Your task to perform on an android device: Go to Google Image 0: 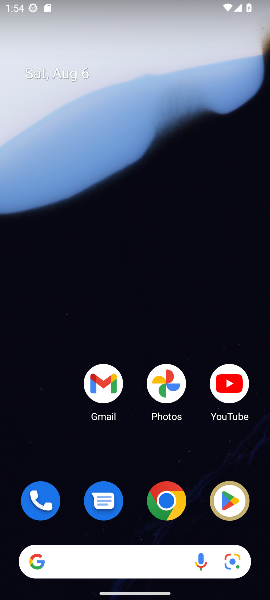
Step 0: press home button
Your task to perform on an android device: Go to Google Image 1: 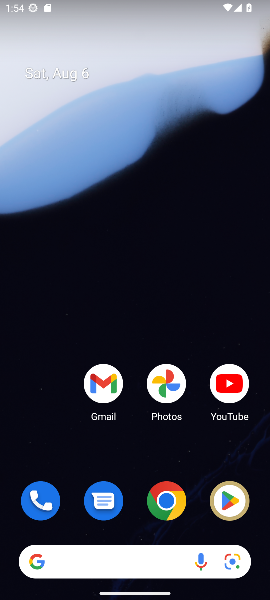
Step 1: click (35, 569)
Your task to perform on an android device: Go to Google Image 2: 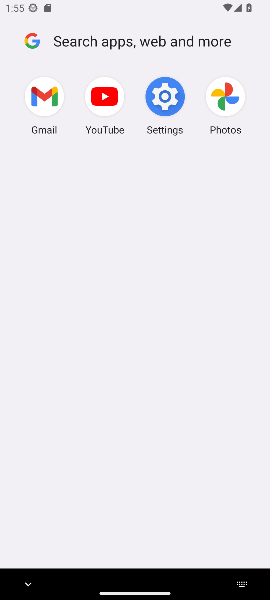
Step 2: task complete